Your task to perform on an android device: turn off translation in the chrome app Image 0: 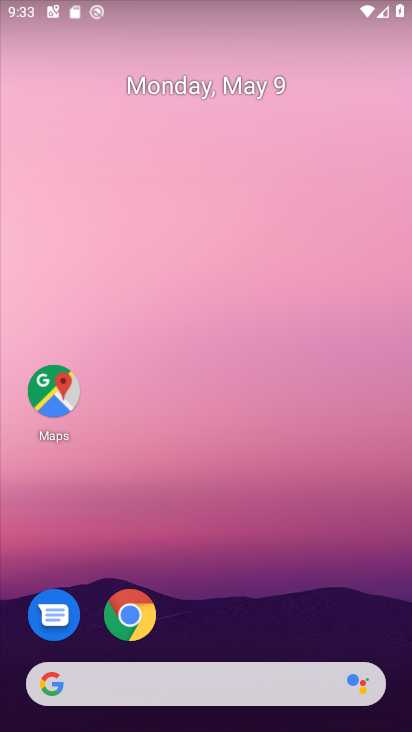
Step 0: drag from (276, 716) to (321, 358)
Your task to perform on an android device: turn off translation in the chrome app Image 1: 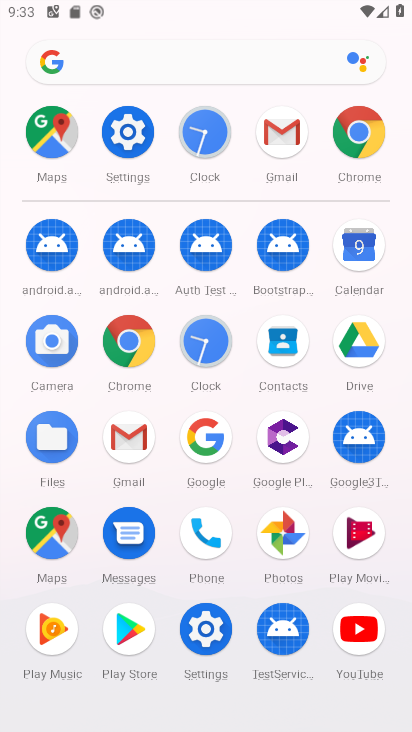
Step 1: click (351, 145)
Your task to perform on an android device: turn off translation in the chrome app Image 2: 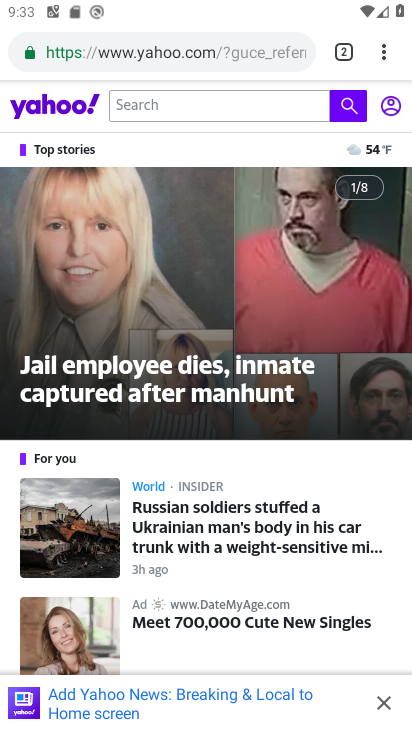
Step 2: click (382, 55)
Your task to perform on an android device: turn off translation in the chrome app Image 3: 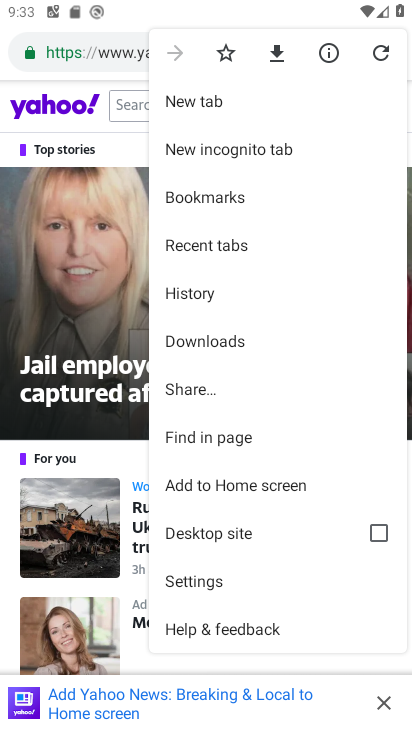
Step 3: click (192, 567)
Your task to perform on an android device: turn off translation in the chrome app Image 4: 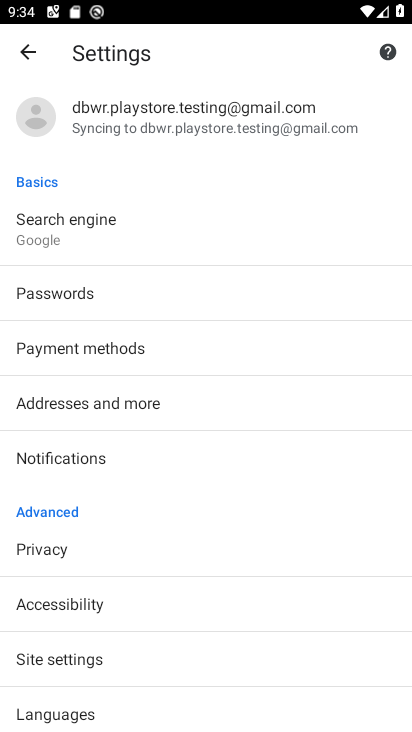
Step 4: click (57, 708)
Your task to perform on an android device: turn off translation in the chrome app Image 5: 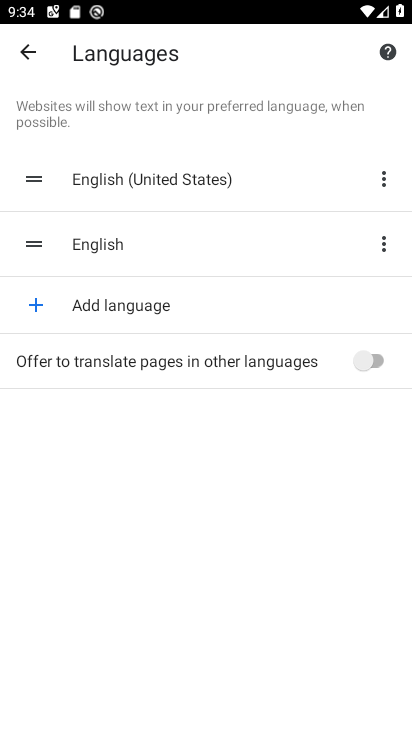
Step 5: click (344, 375)
Your task to perform on an android device: turn off translation in the chrome app Image 6: 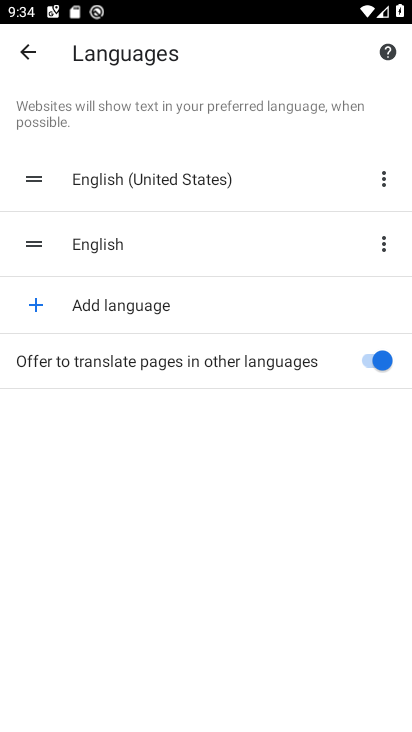
Step 6: click (343, 365)
Your task to perform on an android device: turn off translation in the chrome app Image 7: 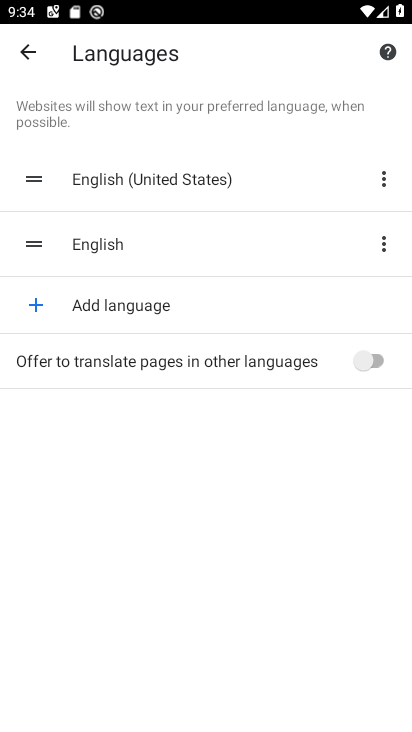
Step 7: task complete